Your task to perform on an android device: Search for pizza restaurants on Maps Image 0: 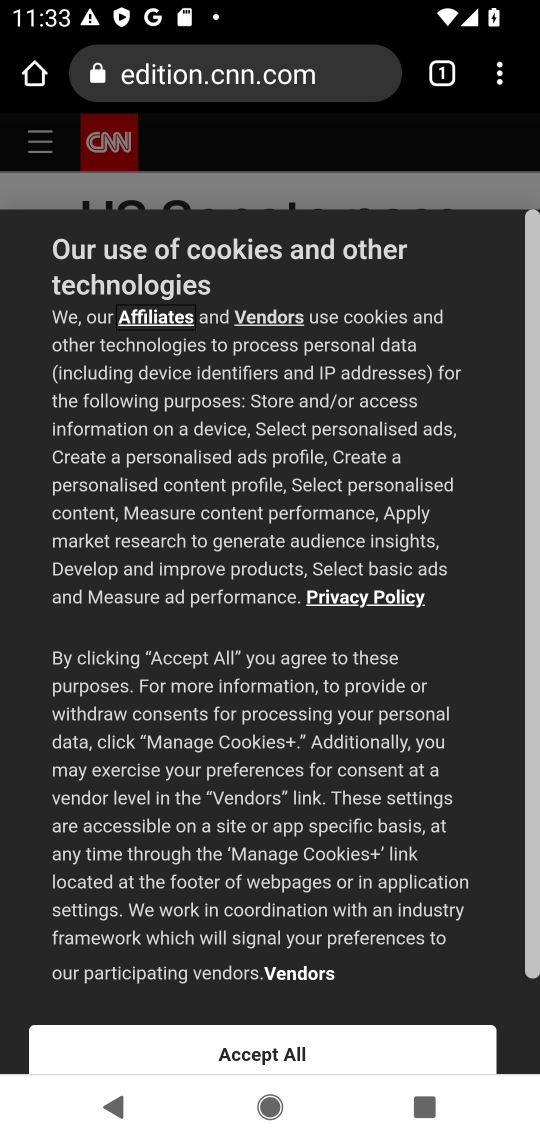
Step 0: press home button
Your task to perform on an android device: Search for pizza restaurants on Maps Image 1: 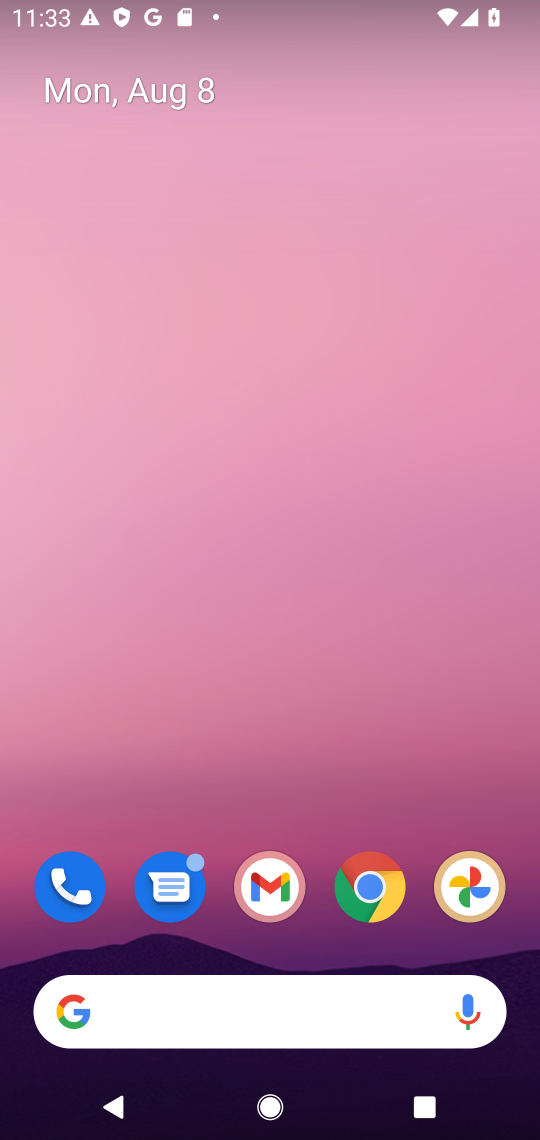
Step 1: drag from (335, 795) to (320, 195)
Your task to perform on an android device: Search for pizza restaurants on Maps Image 2: 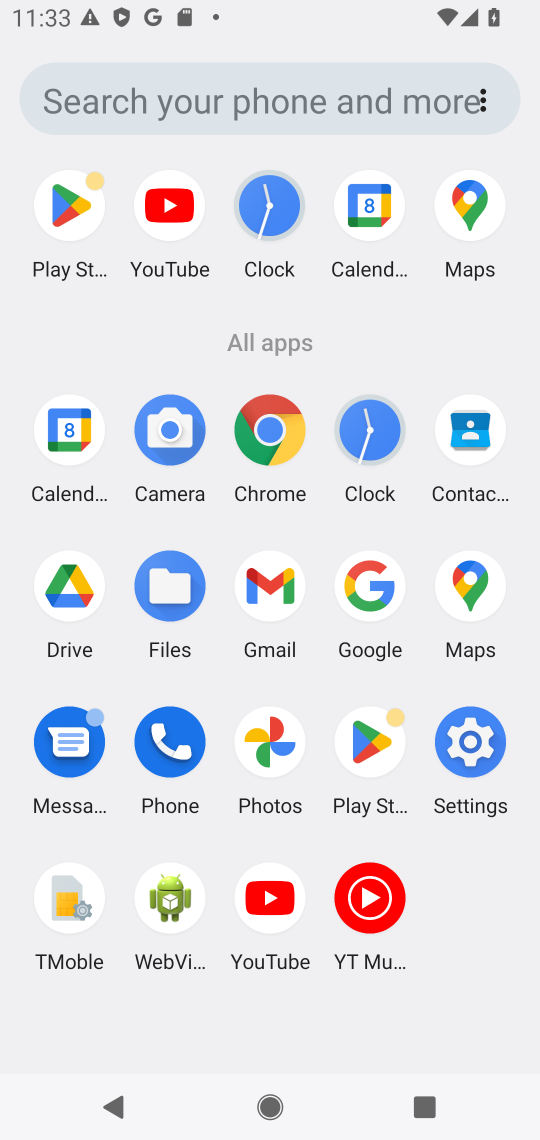
Step 2: click (473, 580)
Your task to perform on an android device: Search for pizza restaurants on Maps Image 3: 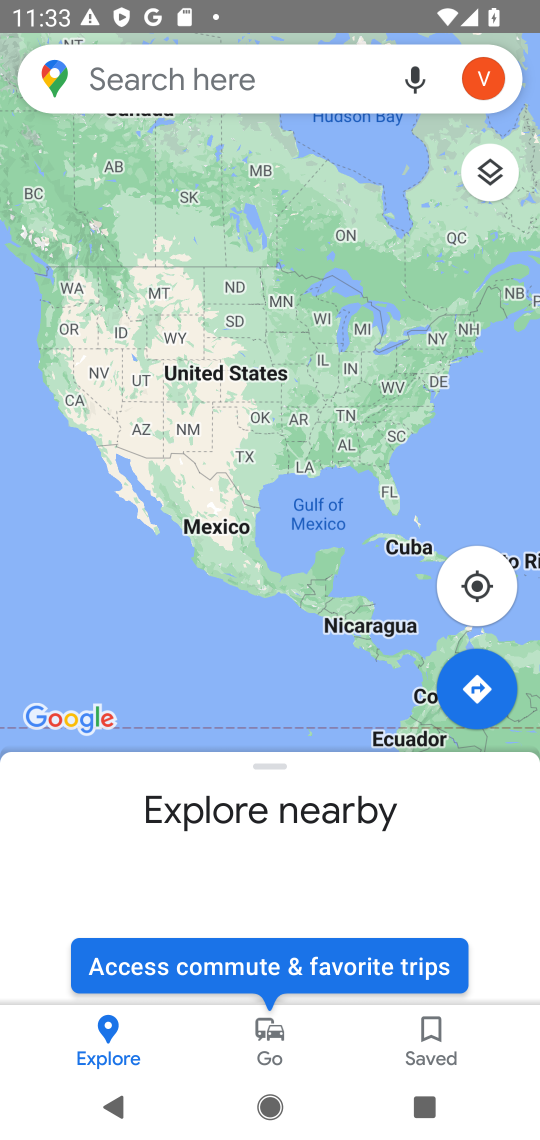
Step 3: click (188, 75)
Your task to perform on an android device: Search for pizza restaurants on Maps Image 4: 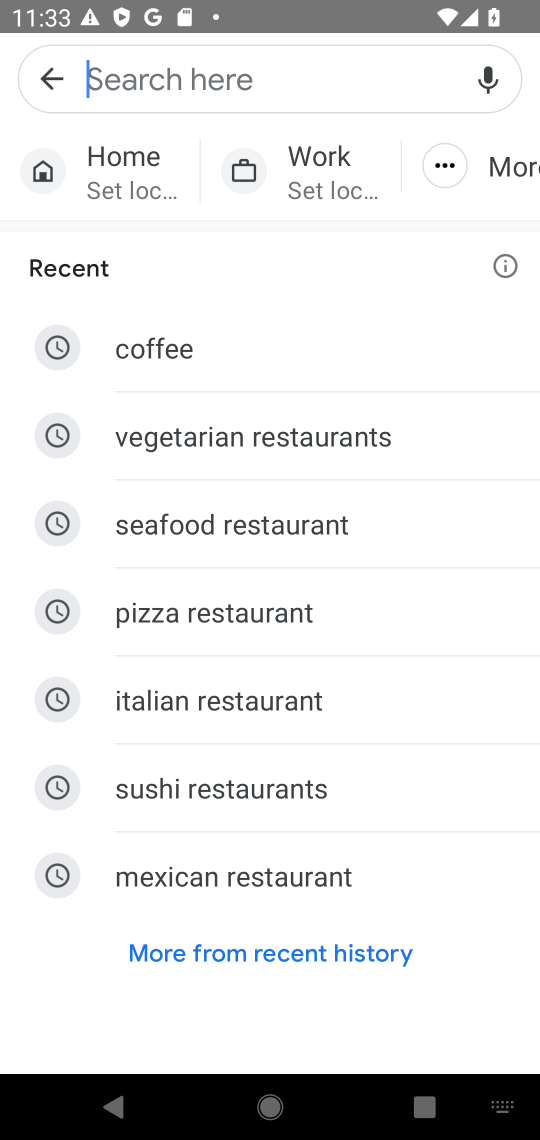
Step 4: click (205, 612)
Your task to perform on an android device: Search for pizza restaurants on Maps Image 5: 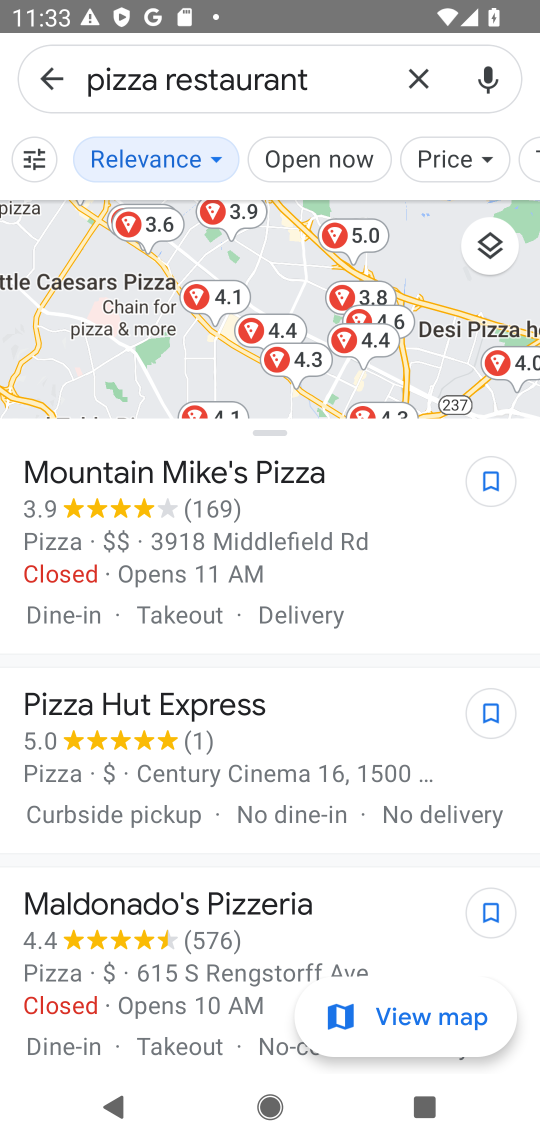
Step 5: task complete